Your task to perform on an android device: toggle wifi Image 0: 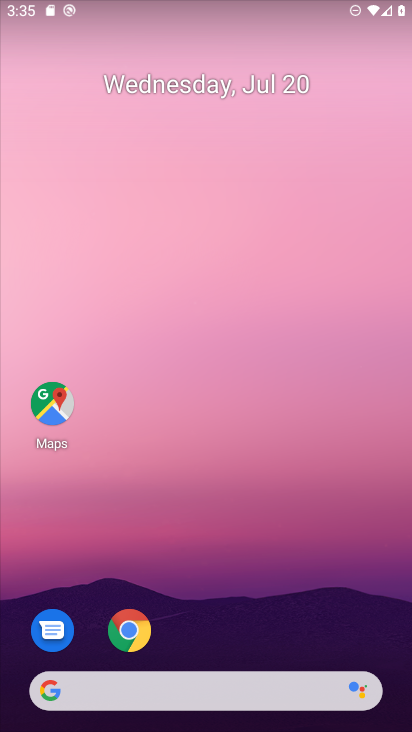
Step 0: drag from (212, 649) to (242, 100)
Your task to perform on an android device: toggle wifi Image 1: 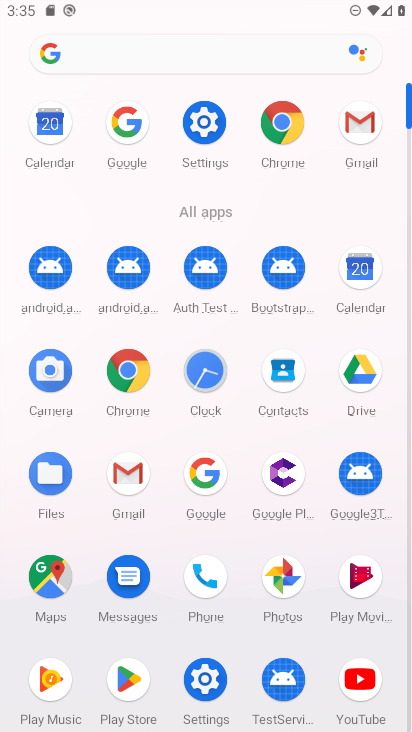
Step 1: click (190, 122)
Your task to perform on an android device: toggle wifi Image 2: 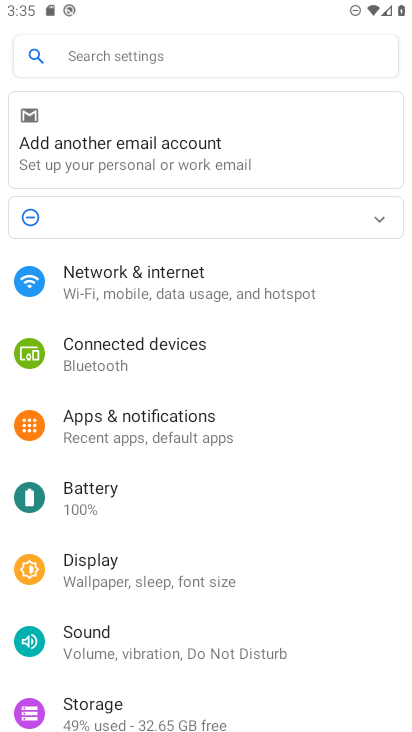
Step 2: click (107, 273)
Your task to perform on an android device: toggle wifi Image 3: 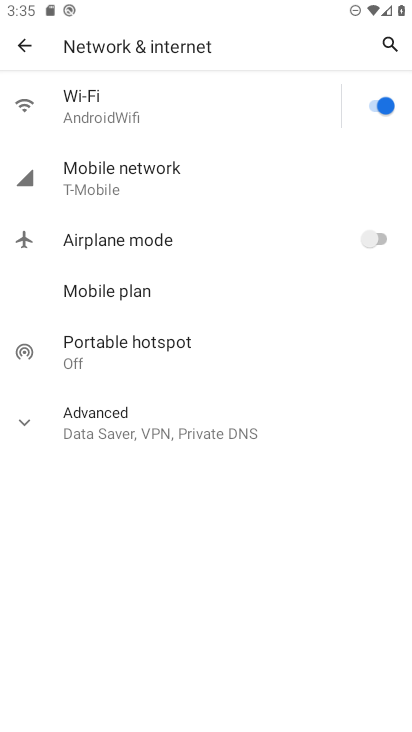
Step 3: click (377, 103)
Your task to perform on an android device: toggle wifi Image 4: 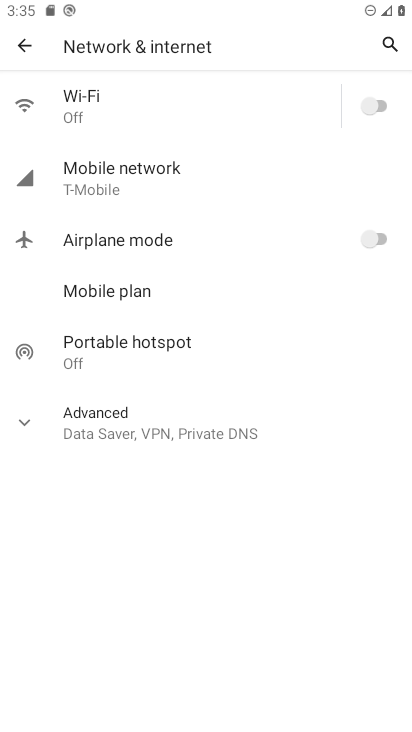
Step 4: task complete